Your task to perform on an android device: Open Chrome and go to the settings page Image 0: 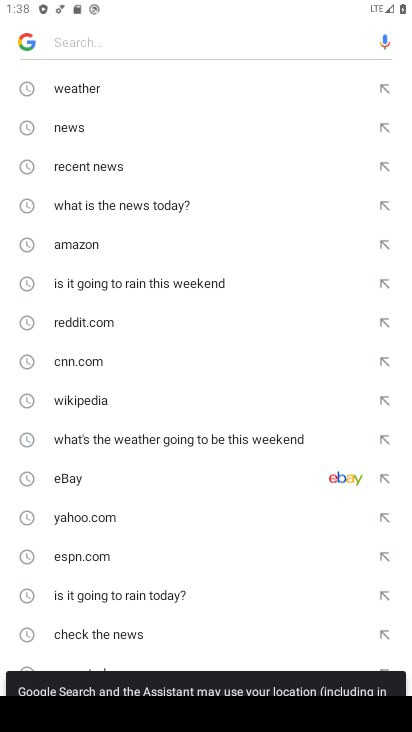
Step 0: press home button
Your task to perform on an android device: Open Chrome and go to the settings page Image 1: 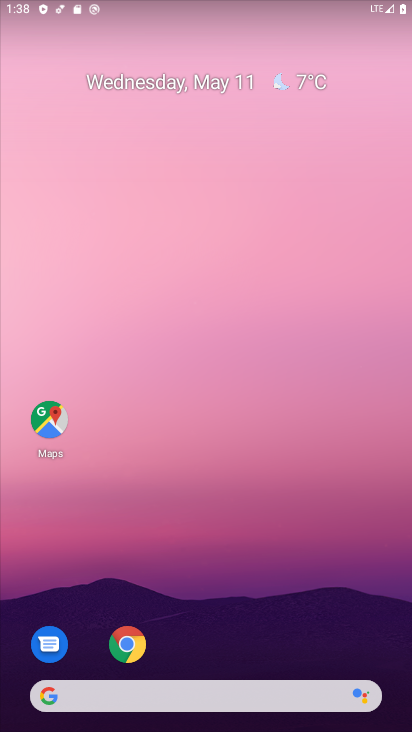
Step 1: click (113, 640)
Your task to perform on an android device: Open Chrome and go to the settings page Image 2: 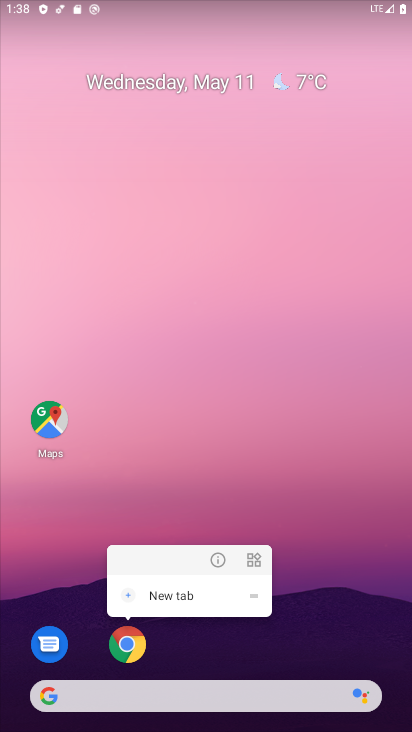
Step 2: click (113, 640)
Your task to perform on an android device: Open Chrome and go to the settings page Image 3: 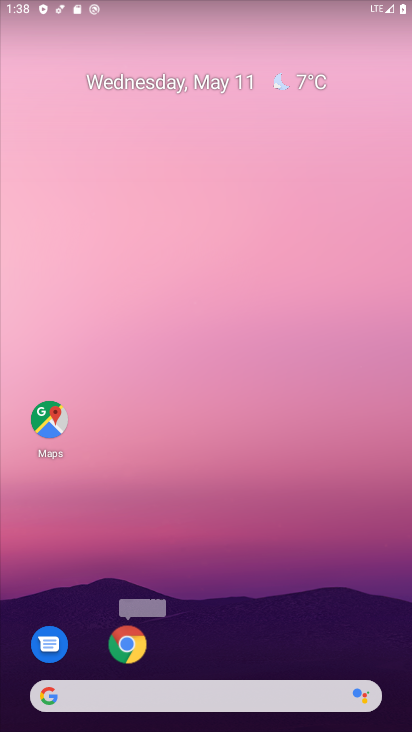
Step 3: click (113, 640)
Your task to perform on an android device: Open Chrome and go to the settings page Image 4: 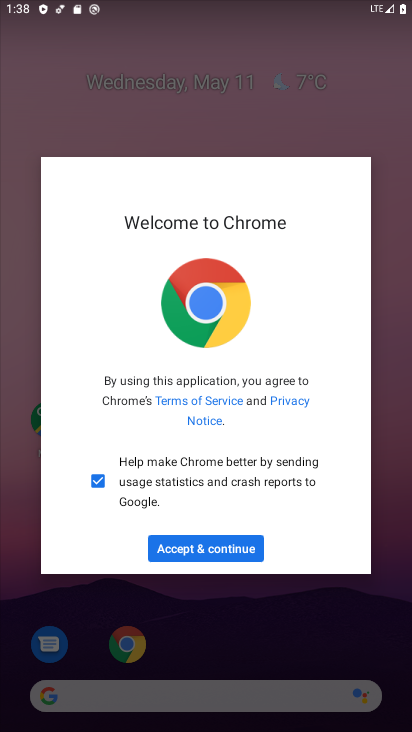
Step 4: click (196, 559)
Your task to perform on an android device: Open Chrome and go to the settings page Image 5: 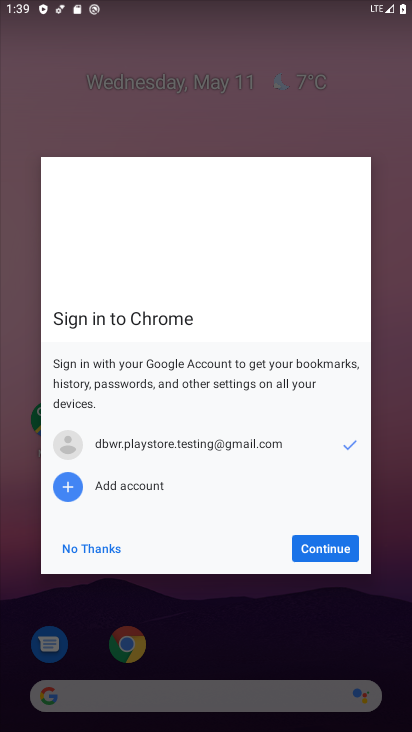
Step 5: click (347, 539)
Your task to perform on an android device: Open Chrome and go to the settings page Image 6: 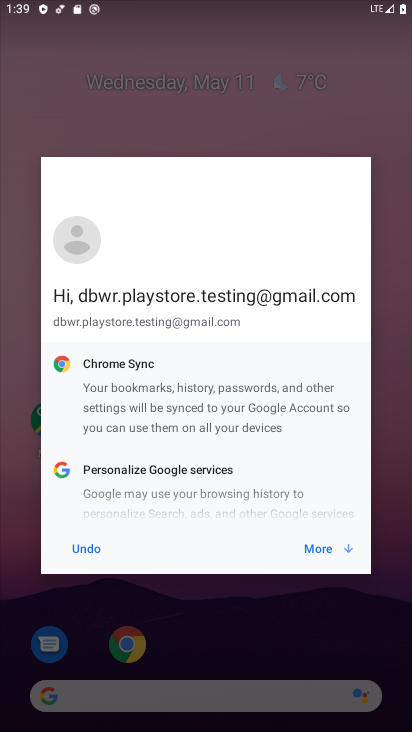
Step 6: click (62, 542)
Your task to perform on an android device: Open Chrome and go to the settings page Image 7: 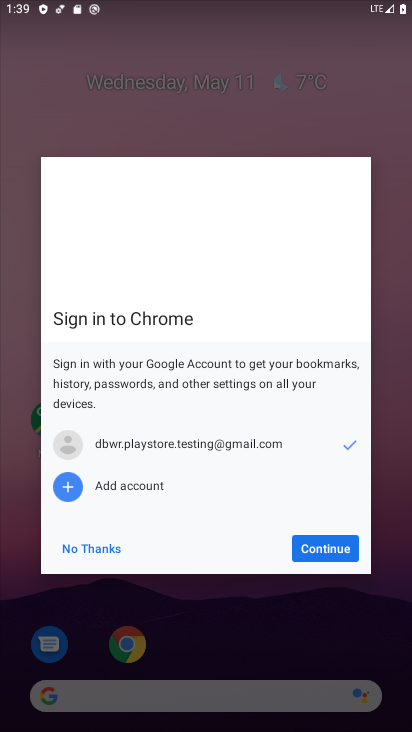
Step 7: click (90, 548)
Your task to perform on an android device: Open Chrome and go to the settings page Image 8: 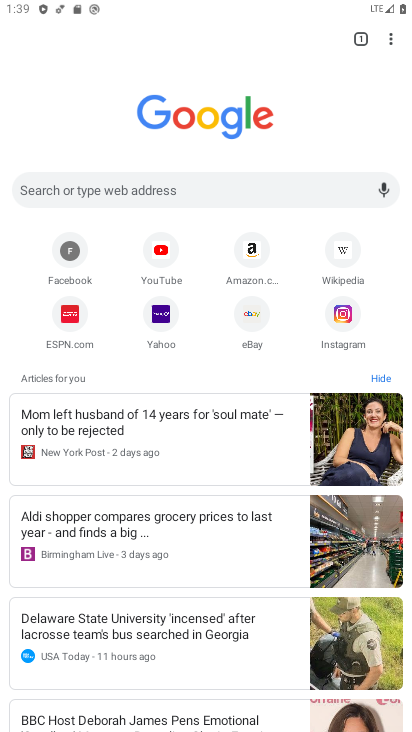
Step 8: click (389, 40)
Your task to perform on an android device: Open Chrome and go to the settings page Image 9: 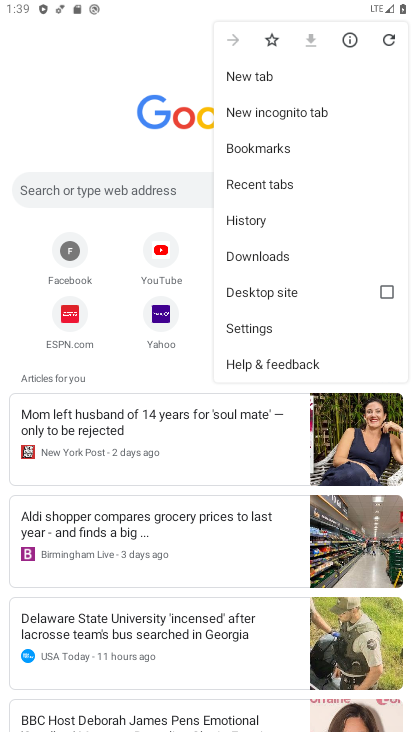
Step 9: click (240, 331)
Your task to perform on an android device: Open Chrome and go to the settings page Image 10: 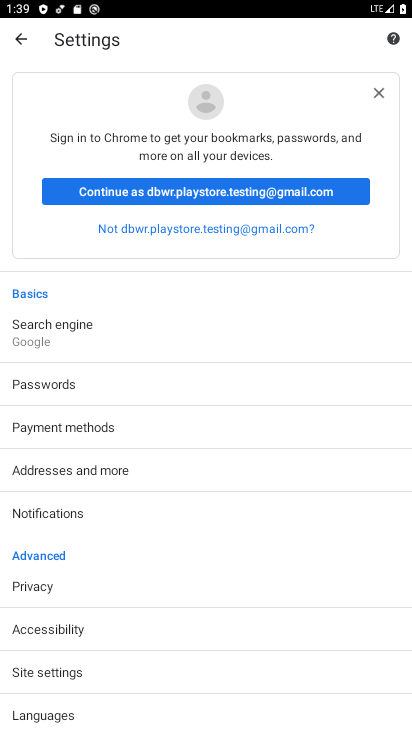
Step 10: task complete